Your task to perform on an android device: delete browsing data in the chrome app Image 0: 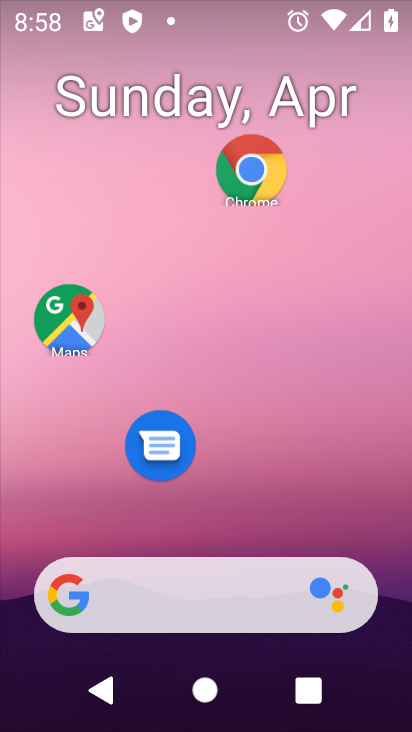
Step 0: click (256, 170)
Your task to perform on an android device: delete browsing data in the chrome app Image 1: 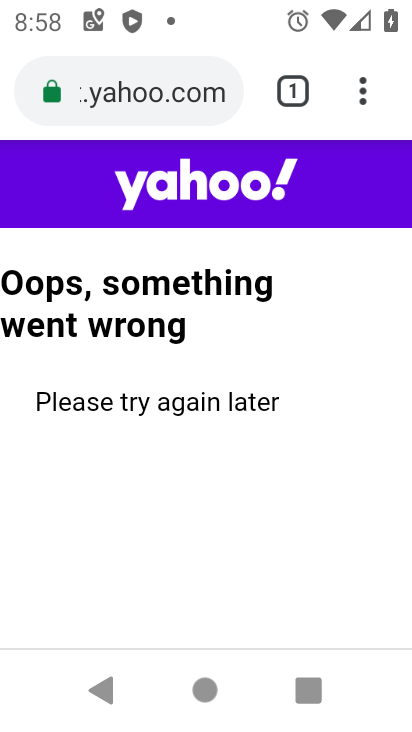
Step 1: click (363, 86)
Your task to perform on an android device: delete browsing data in the chrome app Image 2: 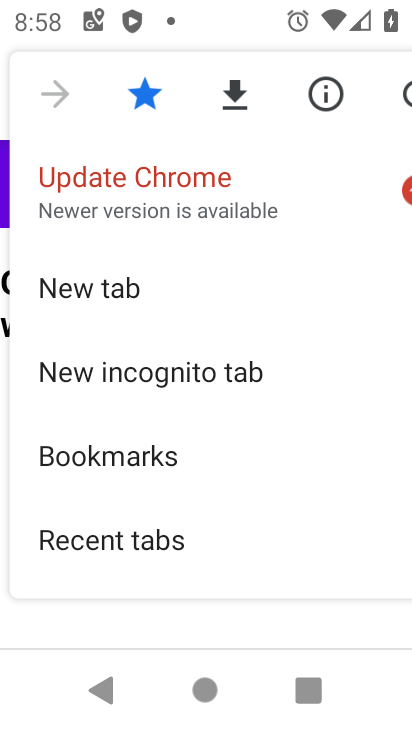
Step 2: drag from (250, 509) to (246, 188)
Your task to perform on an android device: delete browsing data in the chrome app Image 3: 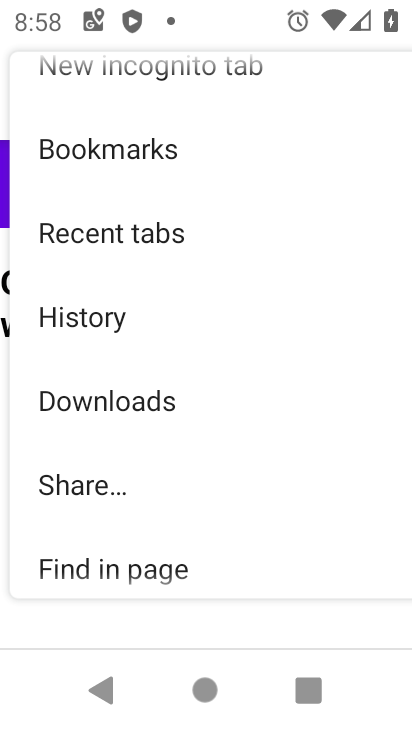
Step 3: drag from (316, 537) to (265, 171)
Your task to perform on an android device: delete browsing data in the chrome app Image 4: 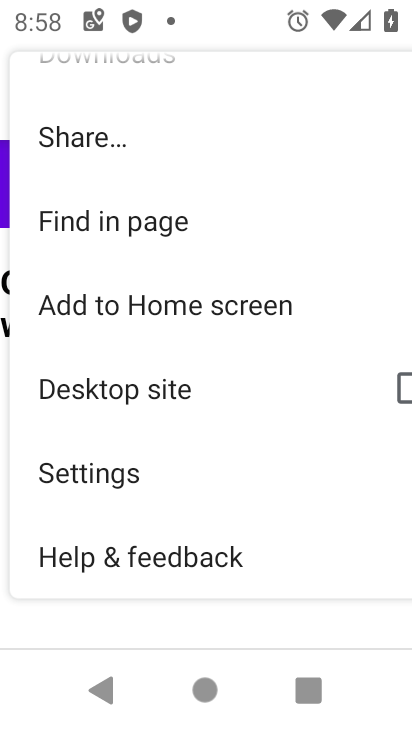
Step 4: click (130, 473)
Your task to perform on an android device: delete browsing data in the chrome app Image 5: 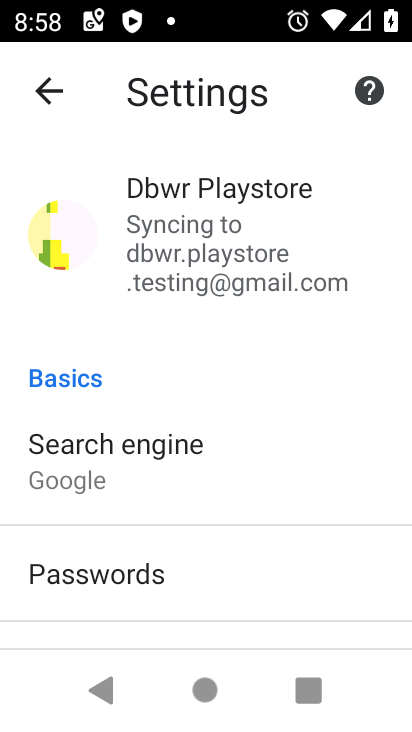
Step 5: drag from (299, 386) to (299, 159)
Your task to perform on an android device: delete browsing data in the chrome app Image 6: 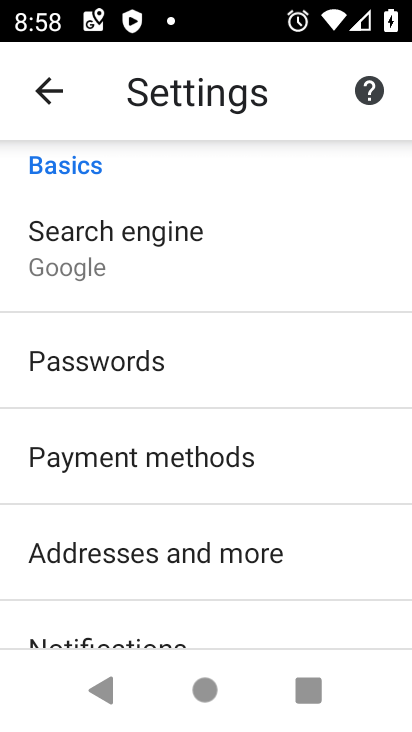
Step 6: drag from (318, 607) to (271, 196)
Your task to perform on an android device: delete browsing data in the chrome app Image 7: 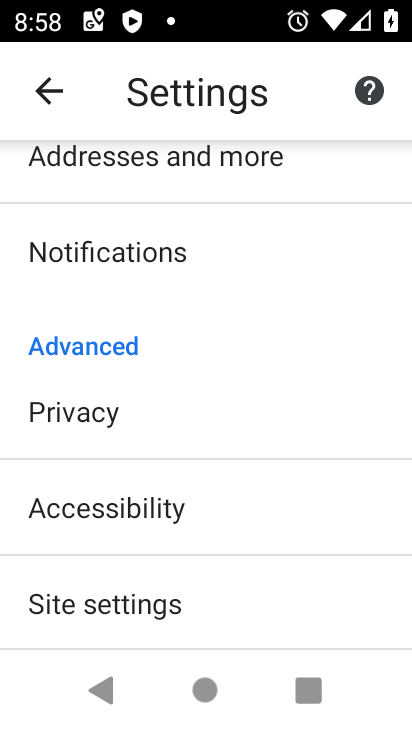
Step 7: click (93, 410)
Your task to perform on an android device: delete browsing data in the chrome app Image 8: 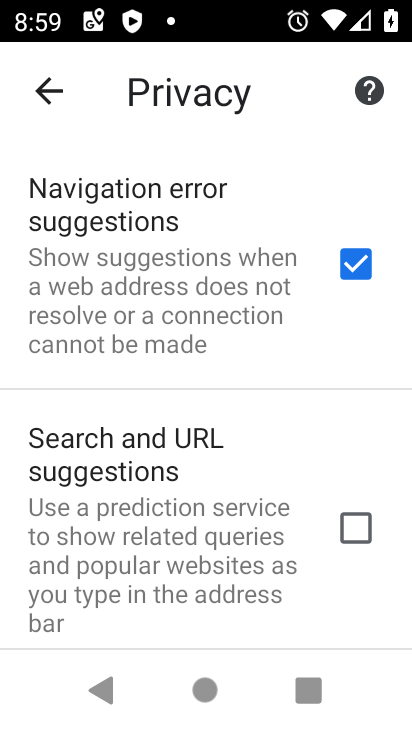
Step 8: drag from (324, 607) to (268, 159)
Your task to perform on an android device: delete browsing data in the chrome app Image 9: 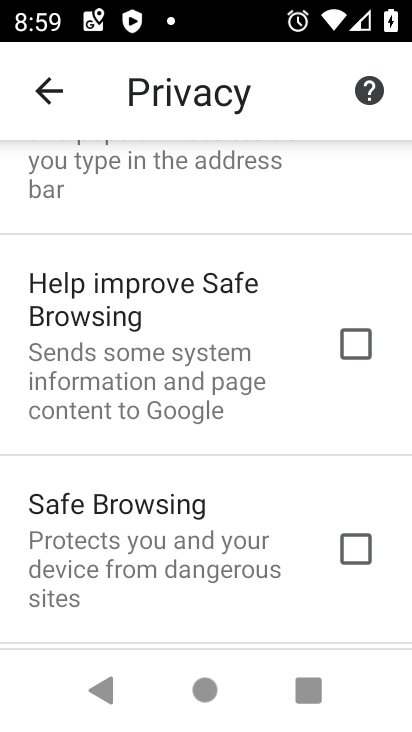
Step 9: drag from (247, 589) to (215, 167)
Your task to perform on an android device: delete browsing data in the chrome app Image 10: 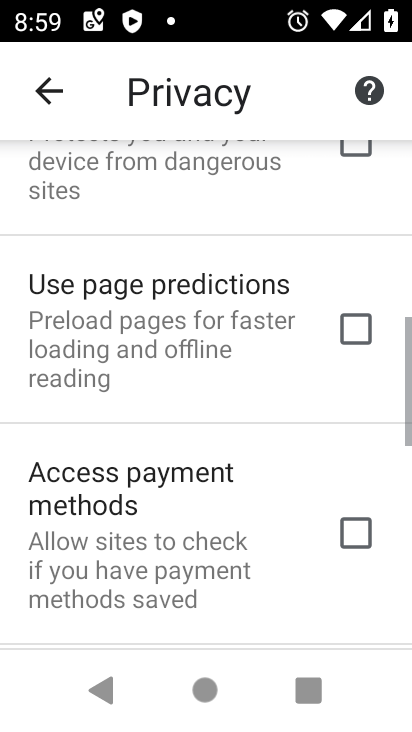
Step 10: drag from (219, 570) to (210, 211)
Your task to perform on an android device: delete browsing data in the chrome app Image 11: 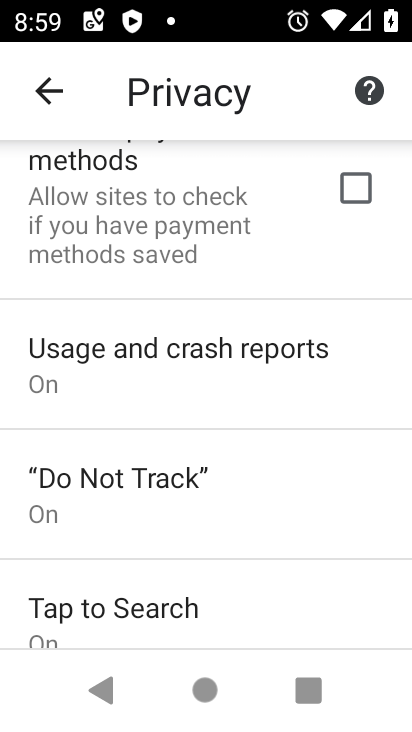
Step 11: drag from (254, 581) to (228, 219)
Your task to perform on an android device: delete browsing data in the chrome app Image 12: 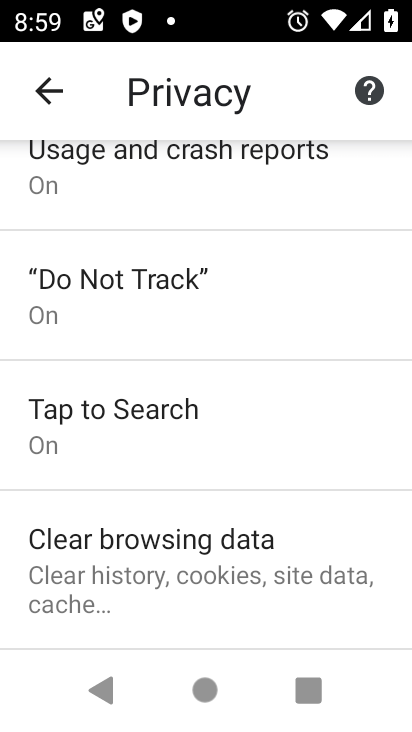
Step 12: click (194, 588)
Your task to perform on an android device: delete browsing data in the chrome app Image 13: 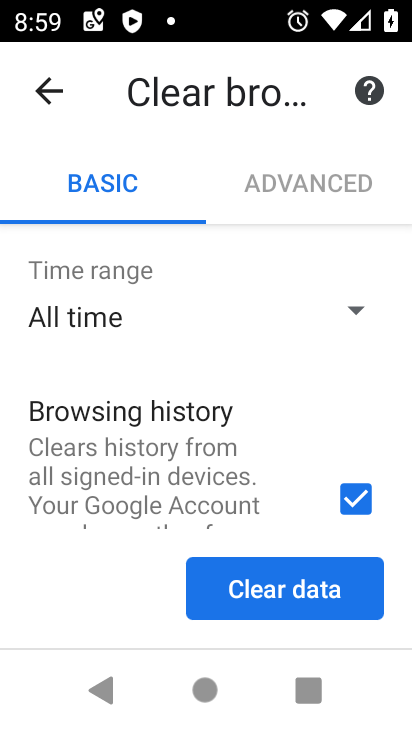
Step 13: drag from (288, 498) to (254, 167)
Your task to perform on an android device: delete browsing data in the chrome app Image 14: 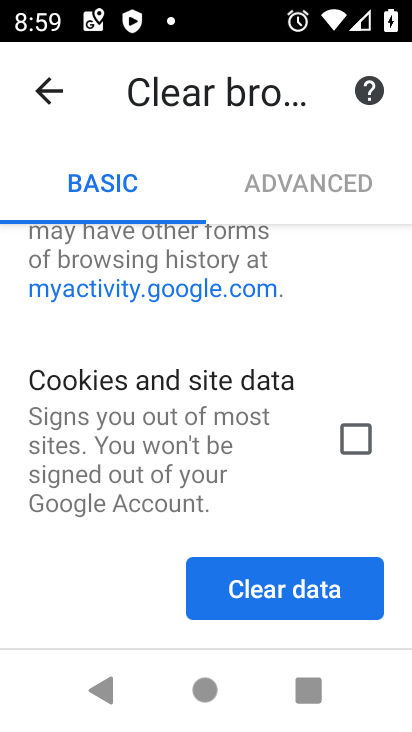
Step 14: click (265, 590)
Your task to perform on an android device: delete browsing data in the chrome app Image 15: 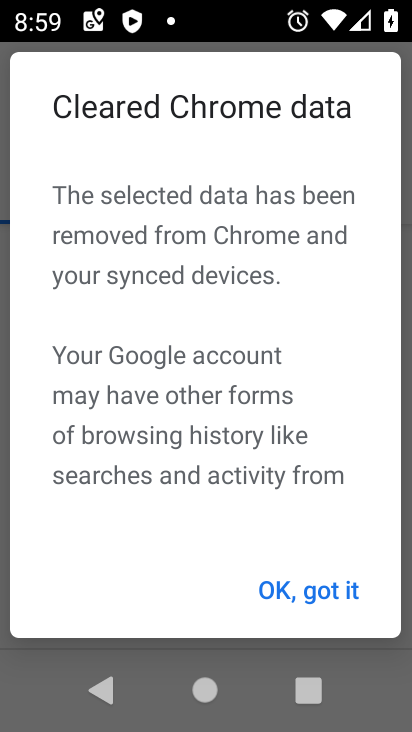
Step 15: click (320, 602)
Your task to perform on an android device: delete browsing data in the chrome app Image 16: 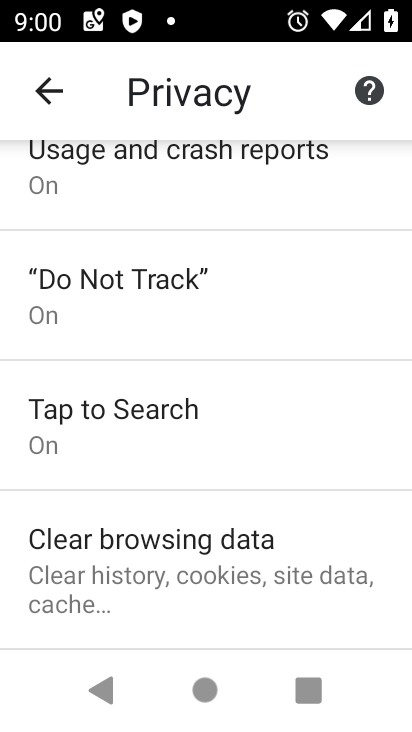
Step 16: task complete